Your task to perform on an android device: Open maps Image 0: 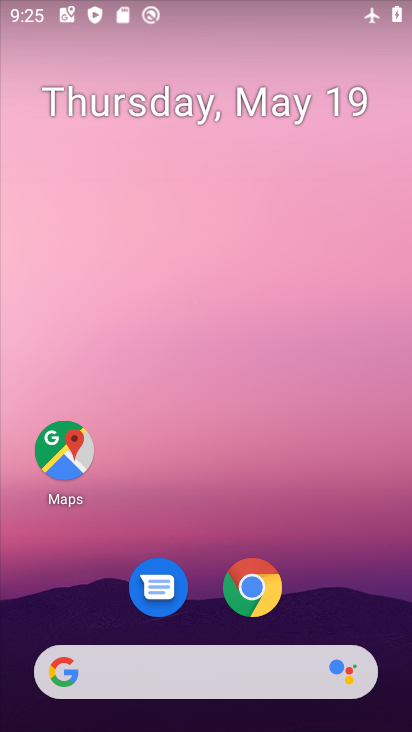
Step 0: click (47, 443)
Your task to perform on an android device: Open maps Image 1: 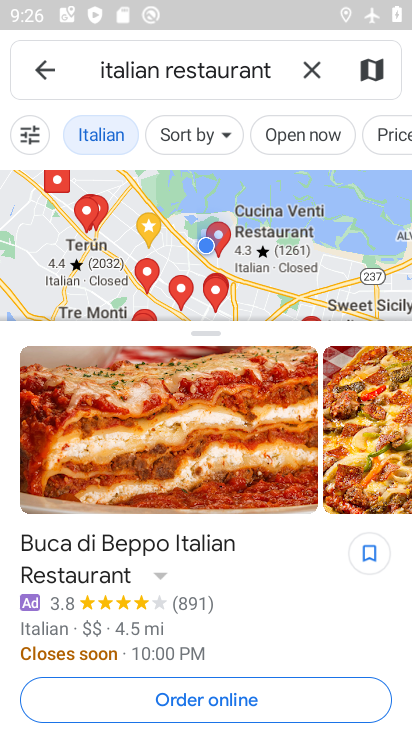
Step 1: task complete